Your task to perform on an android device: Add razer blade to the cart on newegg Image 0: 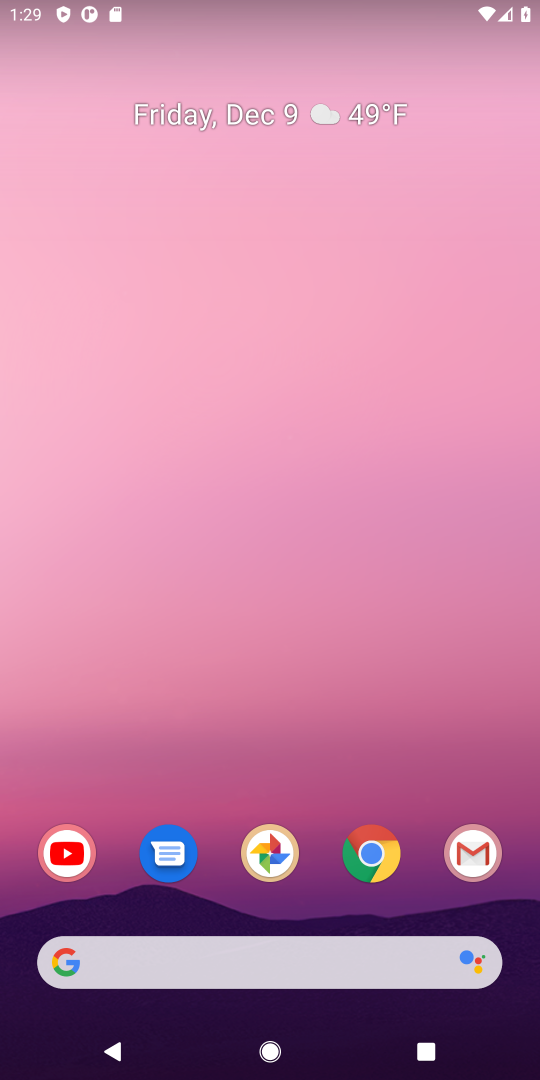
Step 0: drag from (213, 934) to (246, 346)
Your task to perform on an android device: Add razer blade to the cart on newegg Image 1: 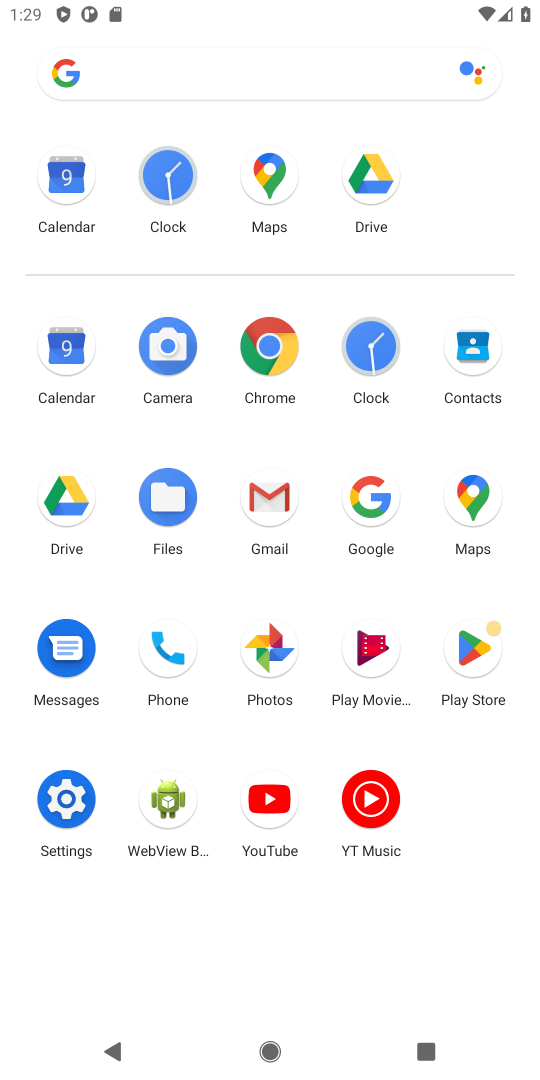
Step 1: click (370, 494)
Your task to perform on an android device: Add razer blade to the cart on newegg Image 2: 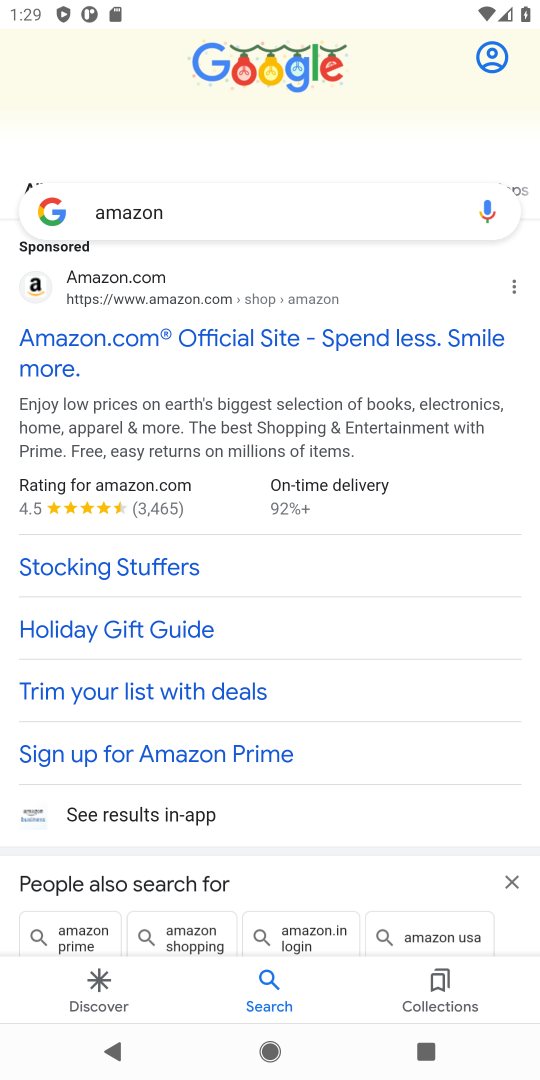
Step 2: click (163, 200)
Your task to perform on an android device: Add razer blade to the cart on newegg Image 3: 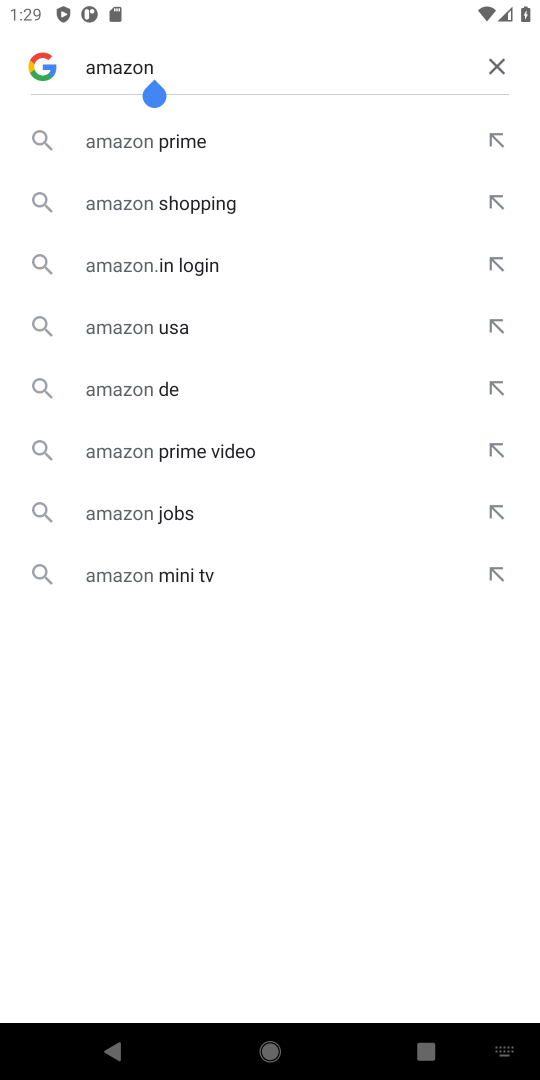
Step 3: click (497, 63)
Your task to perform on an android device: Add razer blade to the cart on newegg Image 4: 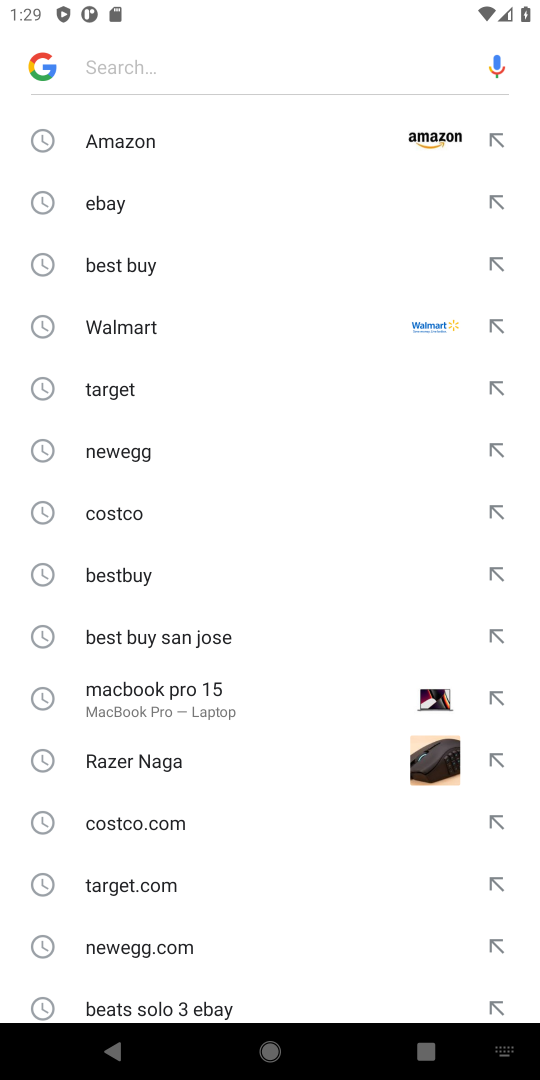
Step 4: click (111, 453)
Your task to perform on an android device: Add razer blade to the cart on newegg Image 5: 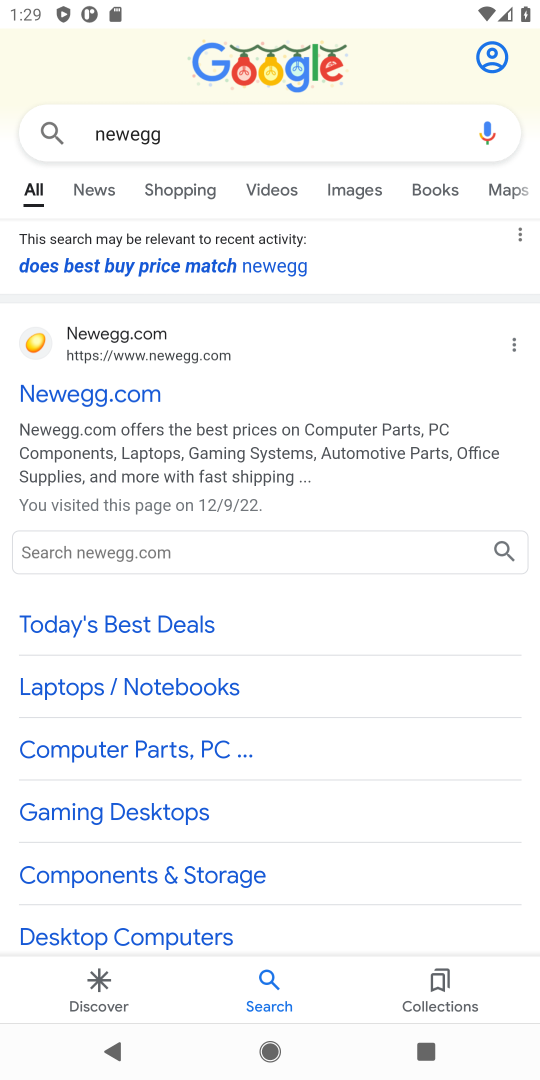
Step 5: click (55, 376)
Your task to perform on an android device: Add razer blade to the cart on newegg Image 6: 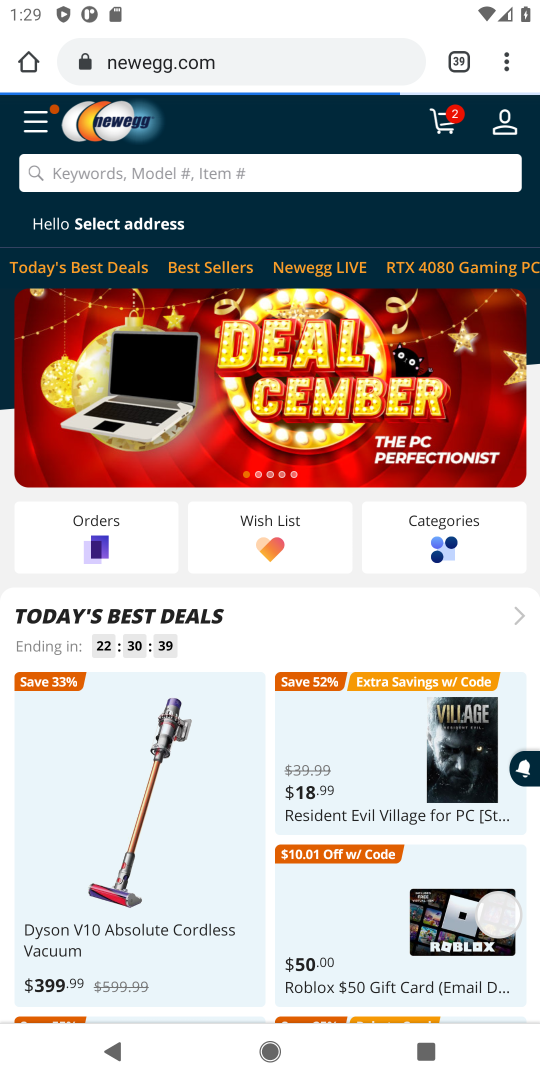
Step 6: click (164, 181)
Your task to perform on an android device: Add razer blade to the cart on newegg Image 7: 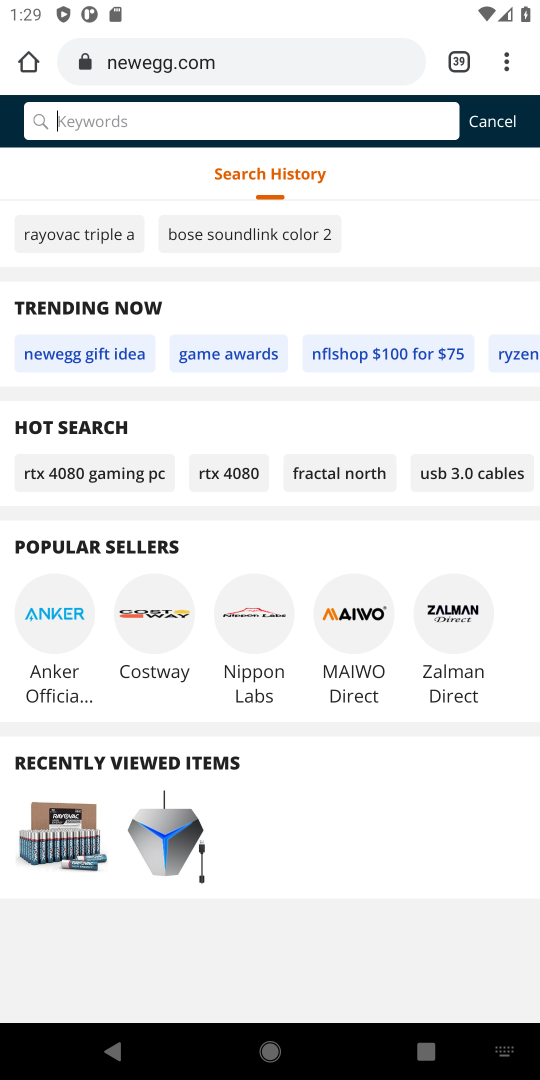
Step 7: type "razer blade"
Your task to perform on an android device: Add razer blade to the cart on newegg Image 8: 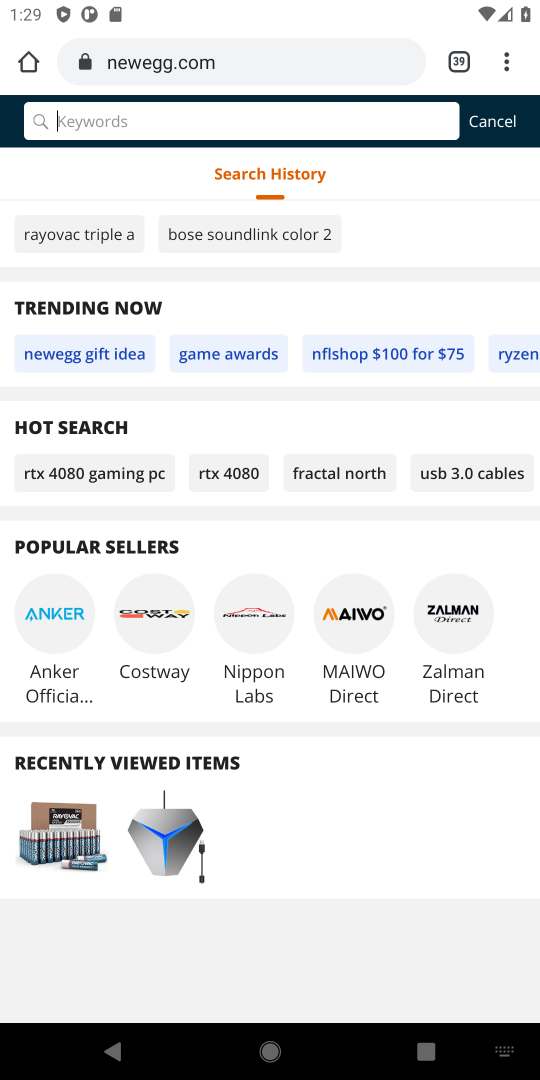
Step 8: click (44, 118)
Your task to perform on an android device: Add razer blade to the cart on newegg Image 9: 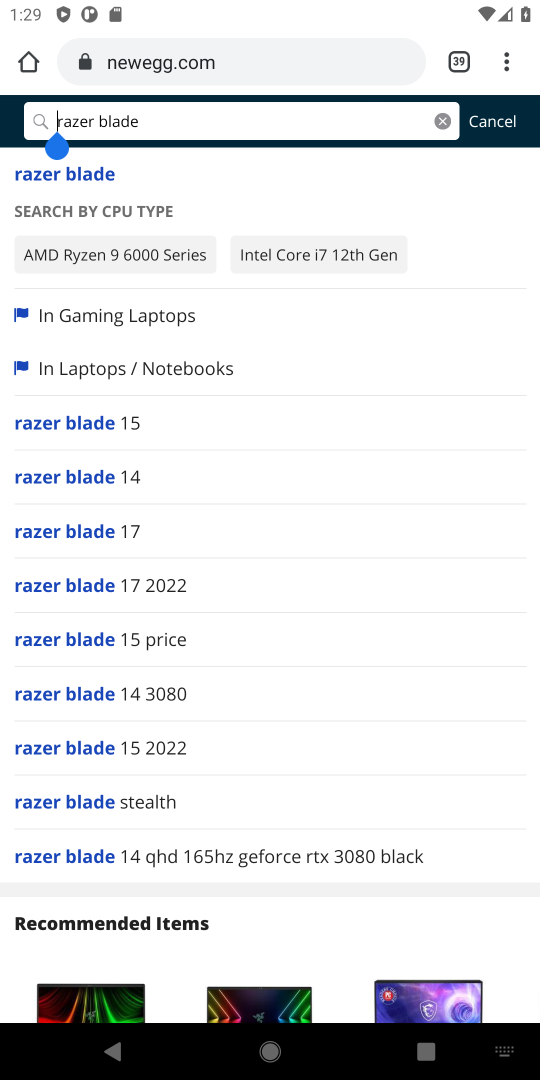
Step 9: click (116, 188)
Your task to perform on an android device: Add razer blade to the cart on newegg Image 10: 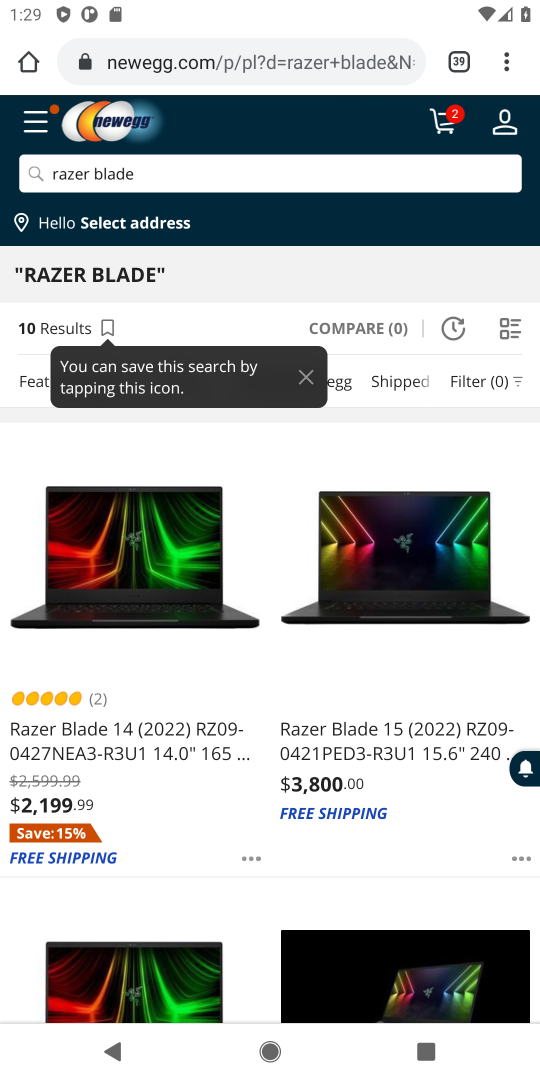
Step 10: click (186, 744)
Your task to perform on an android device: Add razer blade to the cart on newegg Image 11: 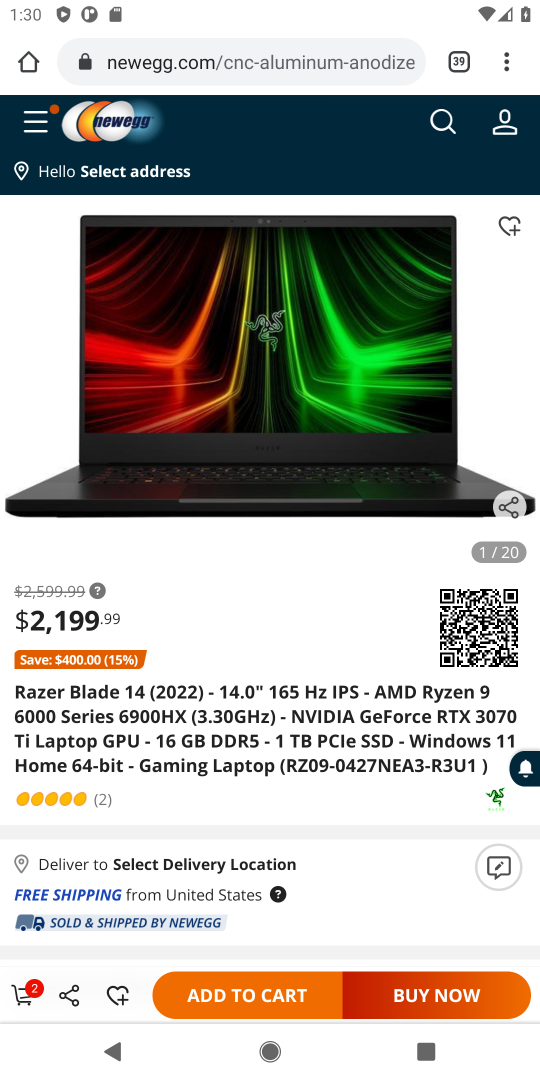
Step 11: click (294, 986)
Your task to perform on an android device: Add razer blade to the cart on newegg Image 12: 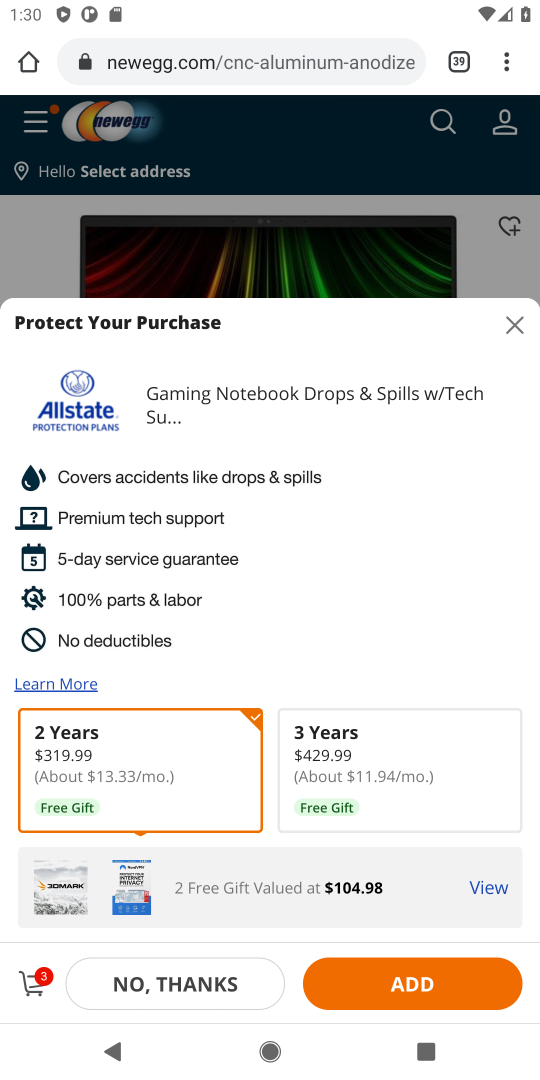
Step 12: task complete